Your task to perform on an android device: Open Google Chrome Image 0: 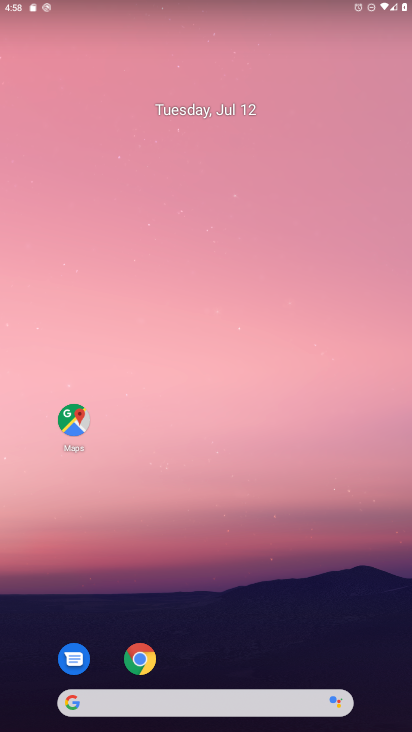
Step 0: click (143, 660)
Your task to perform on an android device: Open Google Chrome Image 1: 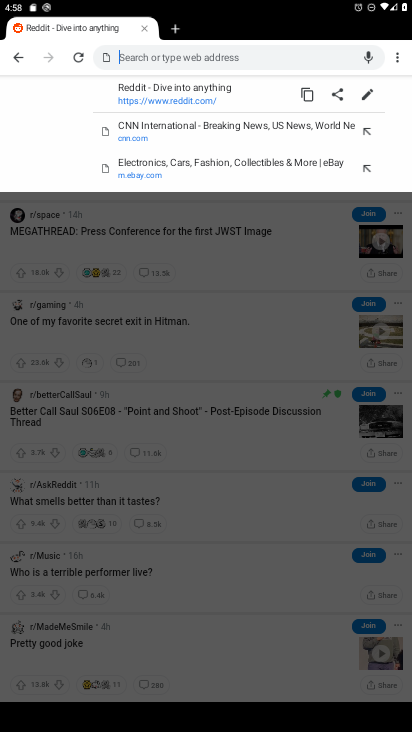
Step 1: task complete